Your task to perform on an android device: Go to settings Image 0: 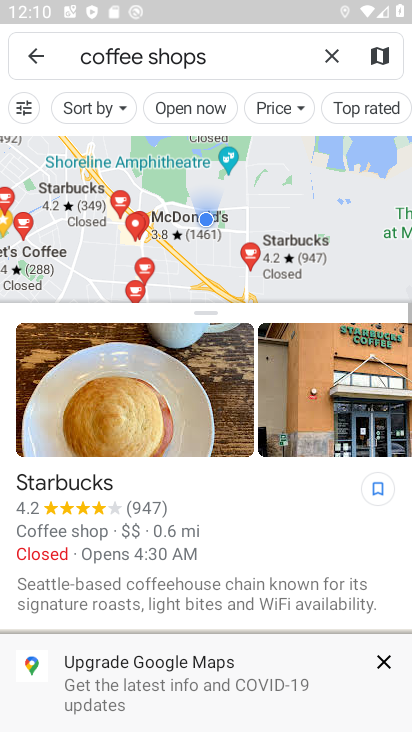
Step 0: click (142, 155)
Your task to perform on an android device: Go to settings Image 1: 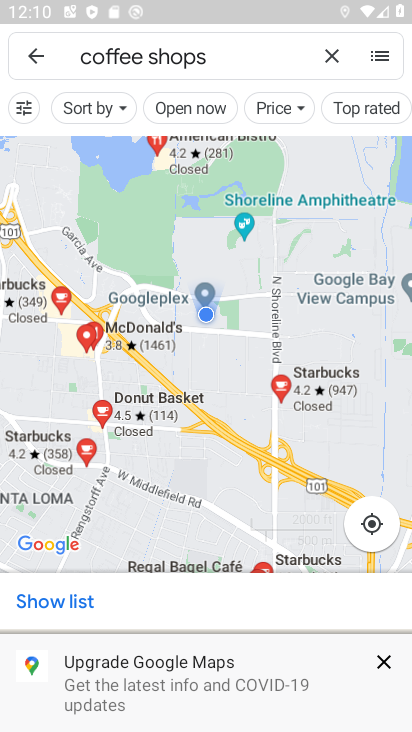
Step 1: press home button
Your task to perform on an android device: Go to settings Image 2: 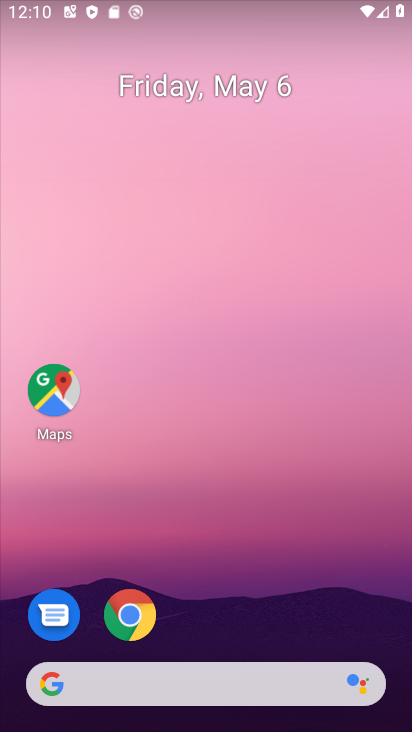
Step 2: drag from (171, 218) to (167, 154)
Your task to perform on an android device: Go to settings Image 3: 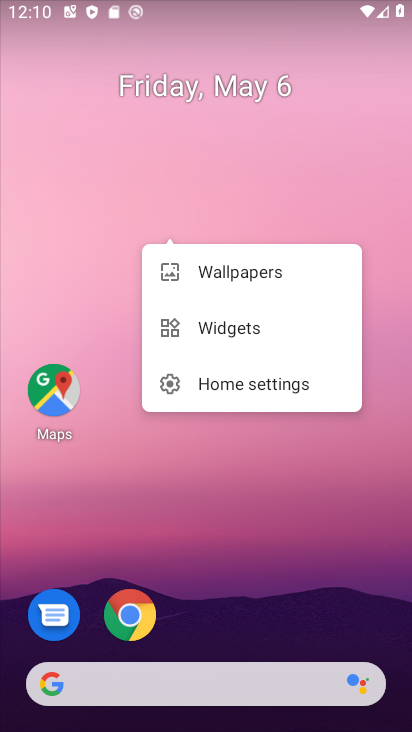
Step 3: drag from (198, 341) to (214, 237)
Your task to perform on an android device: Go to settings Image 4: 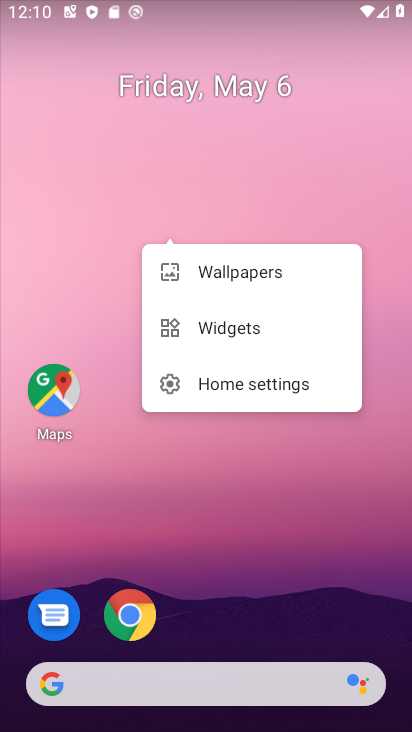
Step 4: drag from (246, 542) to (294, 121)
Your task to perform on an android device: Go to settings Image 5: 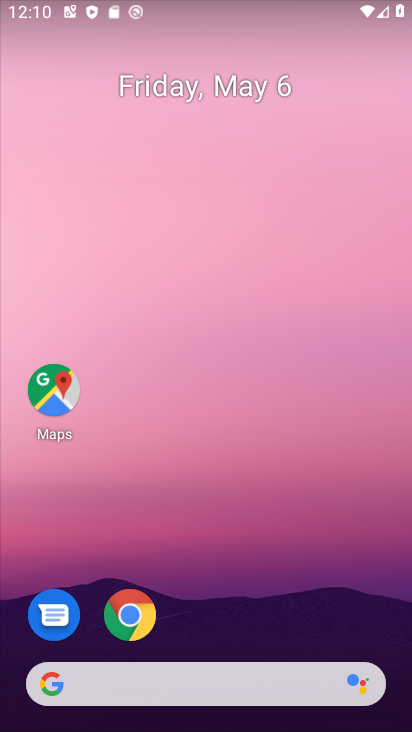
Step 5: drag from (163, 376) to (216, 164)
Your task to perform on an android device: Go to settings Image 6: 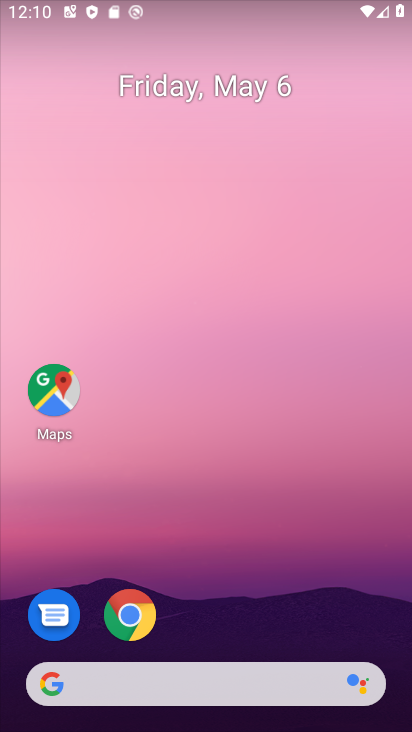
Step 6: drag from (233, 585) to (242, 116)
Your task to perform on an android device: Go to settings Image 7: 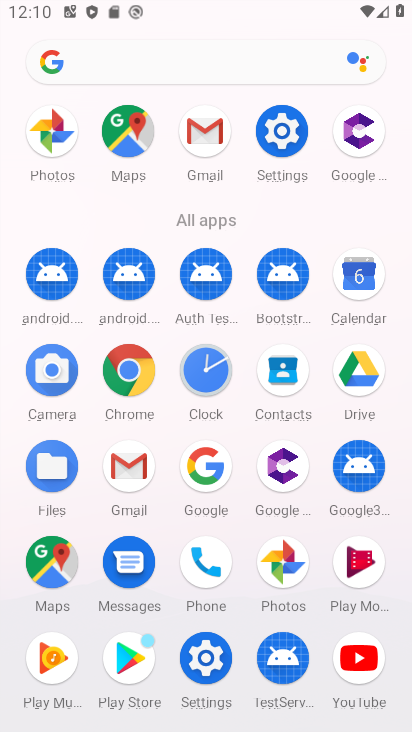
Step 7: click (269, 148)
Your task to perform on an android device: Go to settings Image 8: 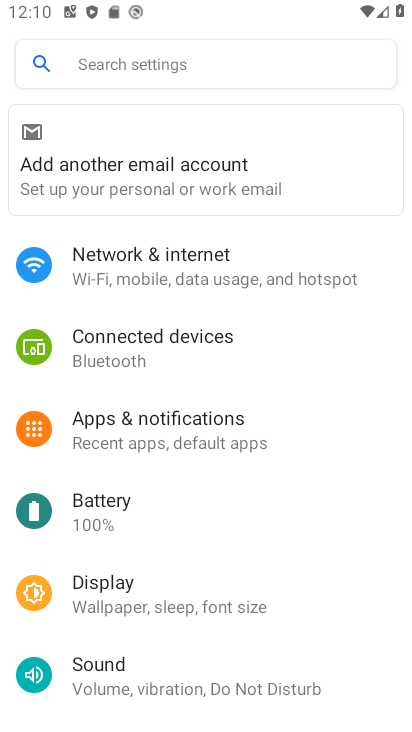
Step 8: task complete